Your task to perform on an android device: Go to wifi settings Image 0: 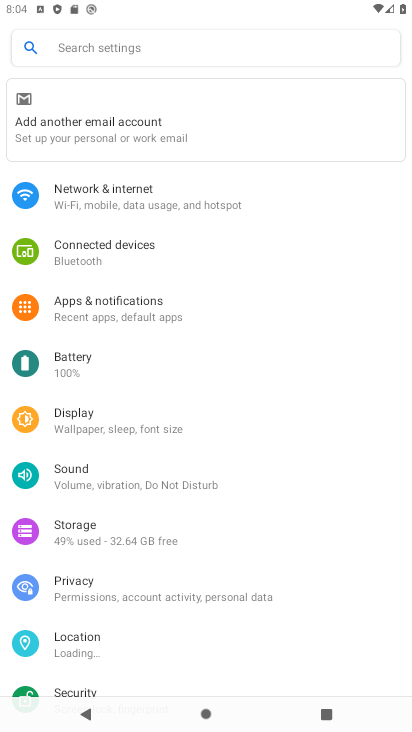
Step 0: click (152, 203)
Your task to perform on an android device: Go to wifi settings Image 1: 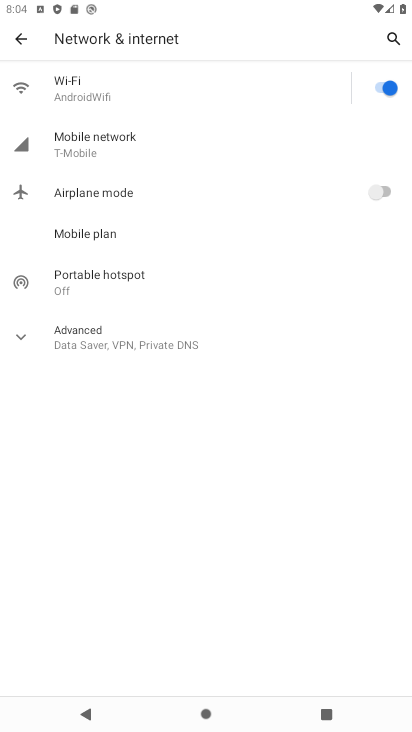
Step 1: click (184, 78)
Your task to perform on an android device: Go to wifi settings Image 2: 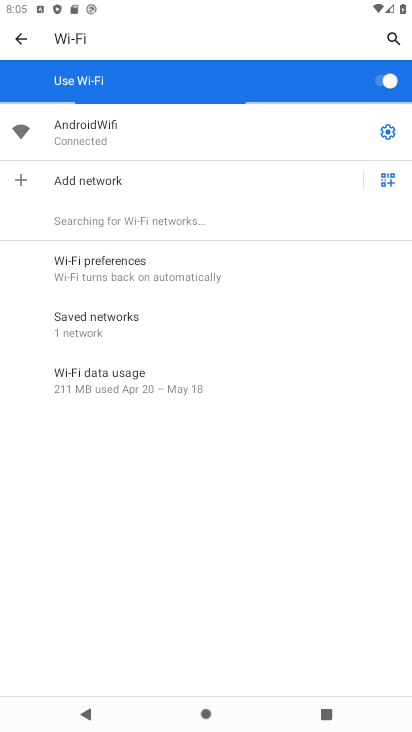
Step 2: task complete